Your task to perform on an android device: change the clock display to show seconds Image 0: 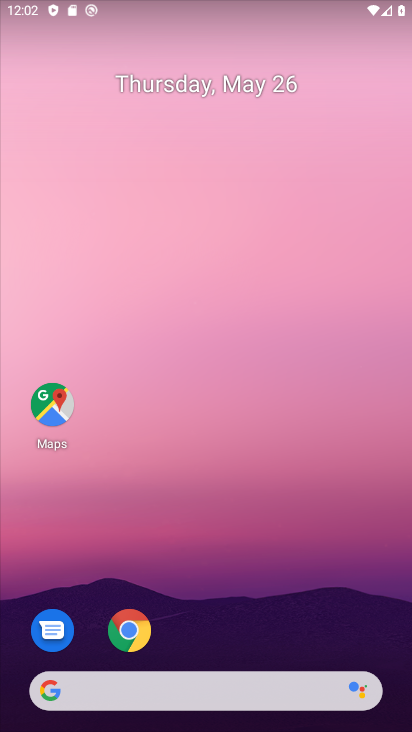
Step 0: drag from (182, 653) to (268, 241)
Your task to perform on an android device: change the clock display to show seconds Image 1: 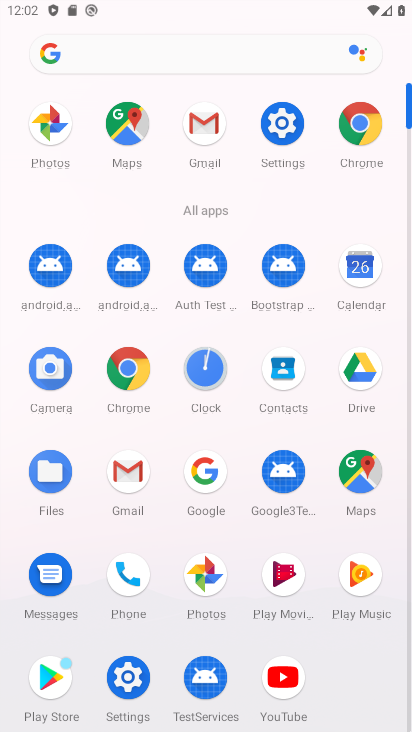
Step 1: click (214, 374)
Your task to perform on an android device: change the clock display to show seconds Image 2: 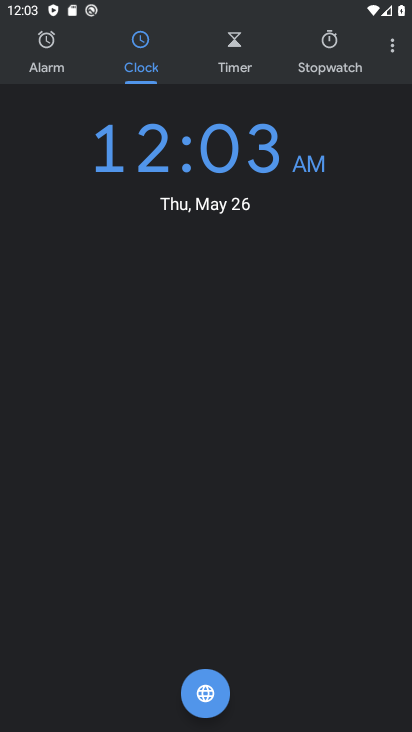
Step 2: click (390, 42)
Your task to perform on an android device: change the clock display to show seconds Image 3: 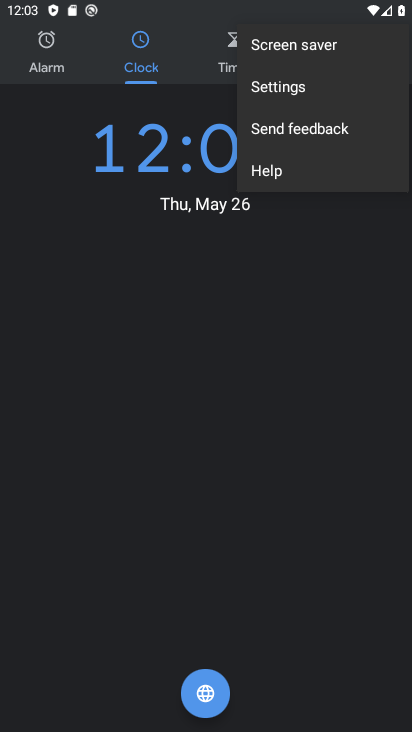
Step 3: click (356, 88)
Your task to perform on an android device: change the clock display to show seconds Image 4: 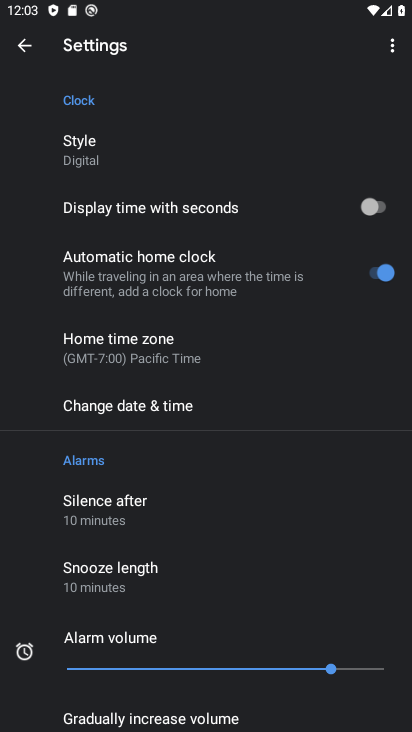
Step 4: click (397, 208)
Your task to perform on an android device: change the clock display to show seconds Image 5: 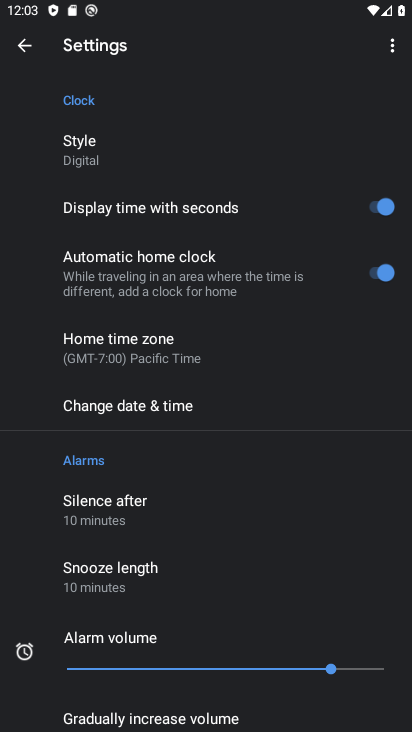
Step 5: task complete